Your task to perform on an android device: WHat are the new products by Samsung on eBay? Image 0: 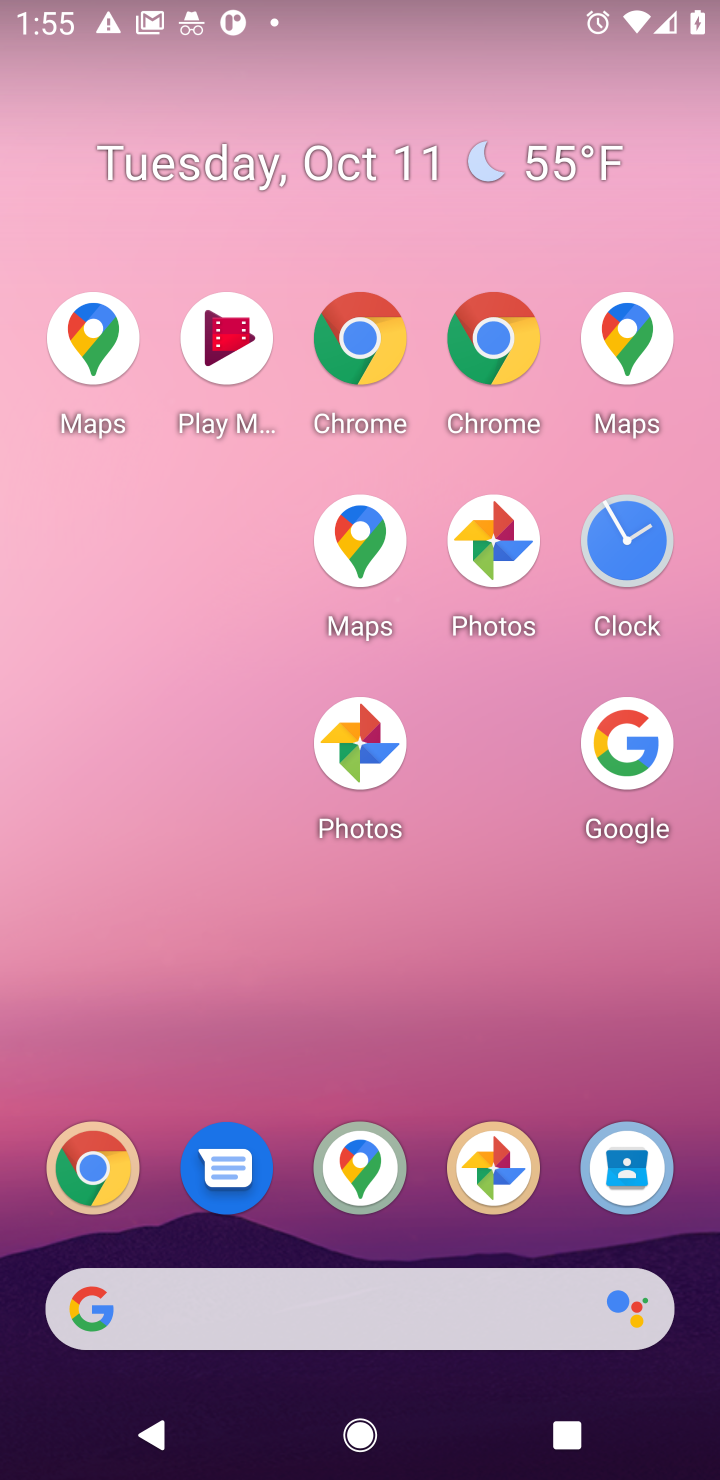
Step 0: click (609, 787)
Your task to perform on an android device: WHat are the new products by Samsung on eBay? Image 1: 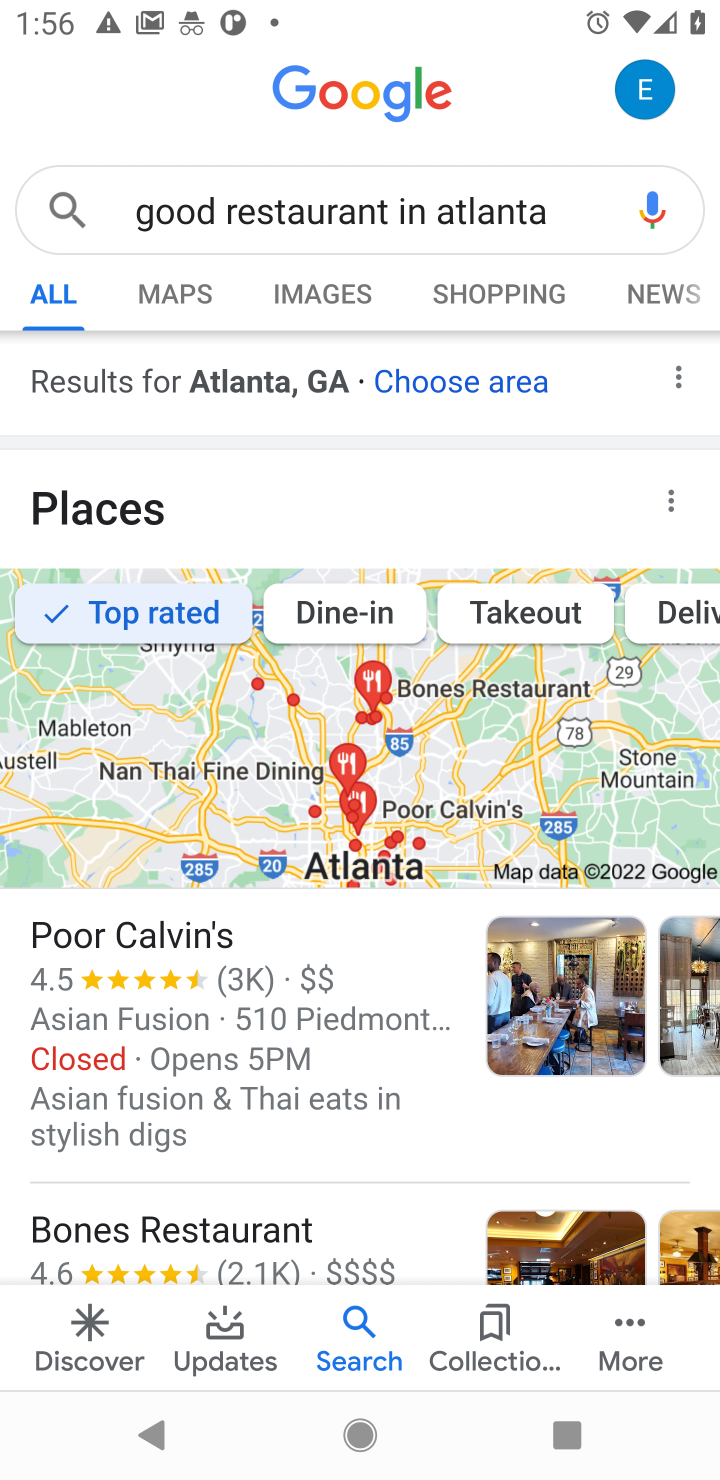
Step 1: click (551, 198)
Your task to perform on an android device: WHat are the new products by Samsung on eBay? Image 2: 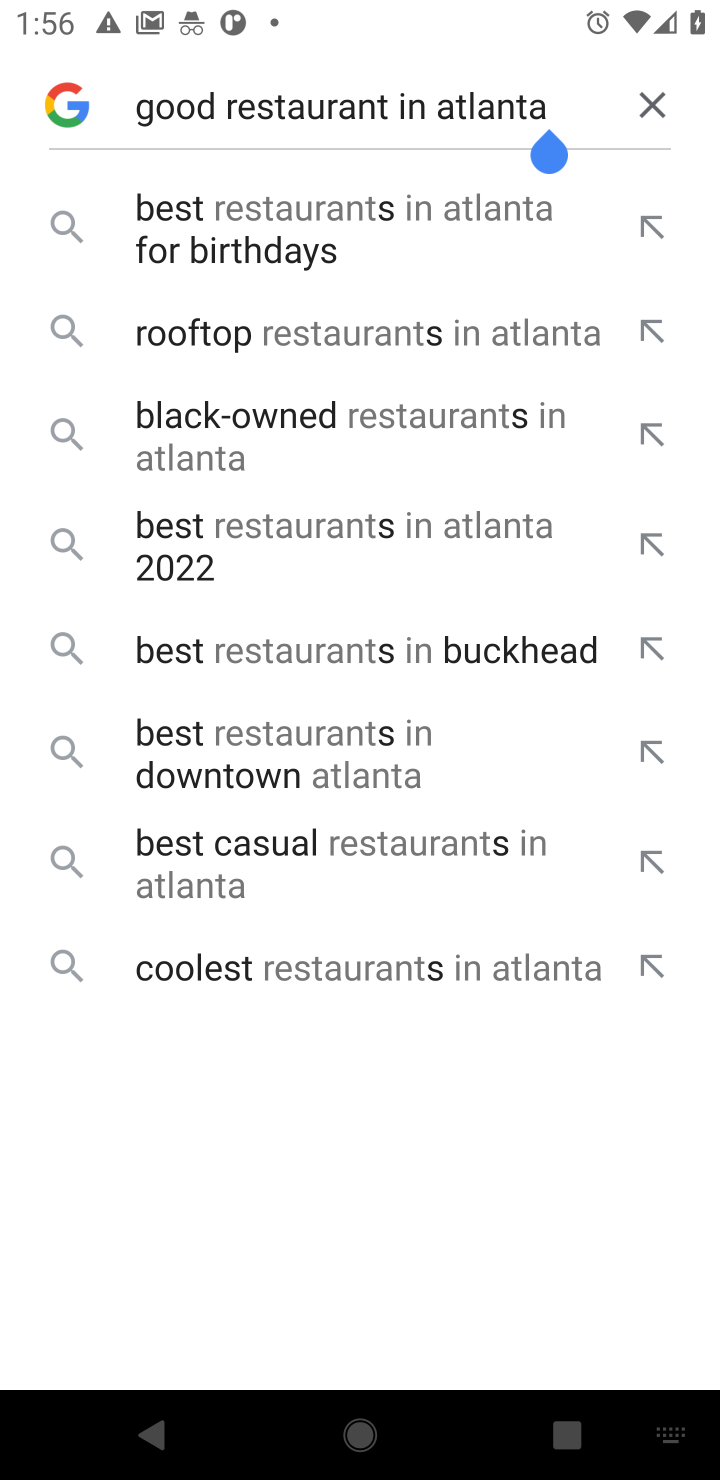
Step 2: click (641, 108)
Your task to perform on an android device: WHat are the new products by Samsung on eBay? Image 3: 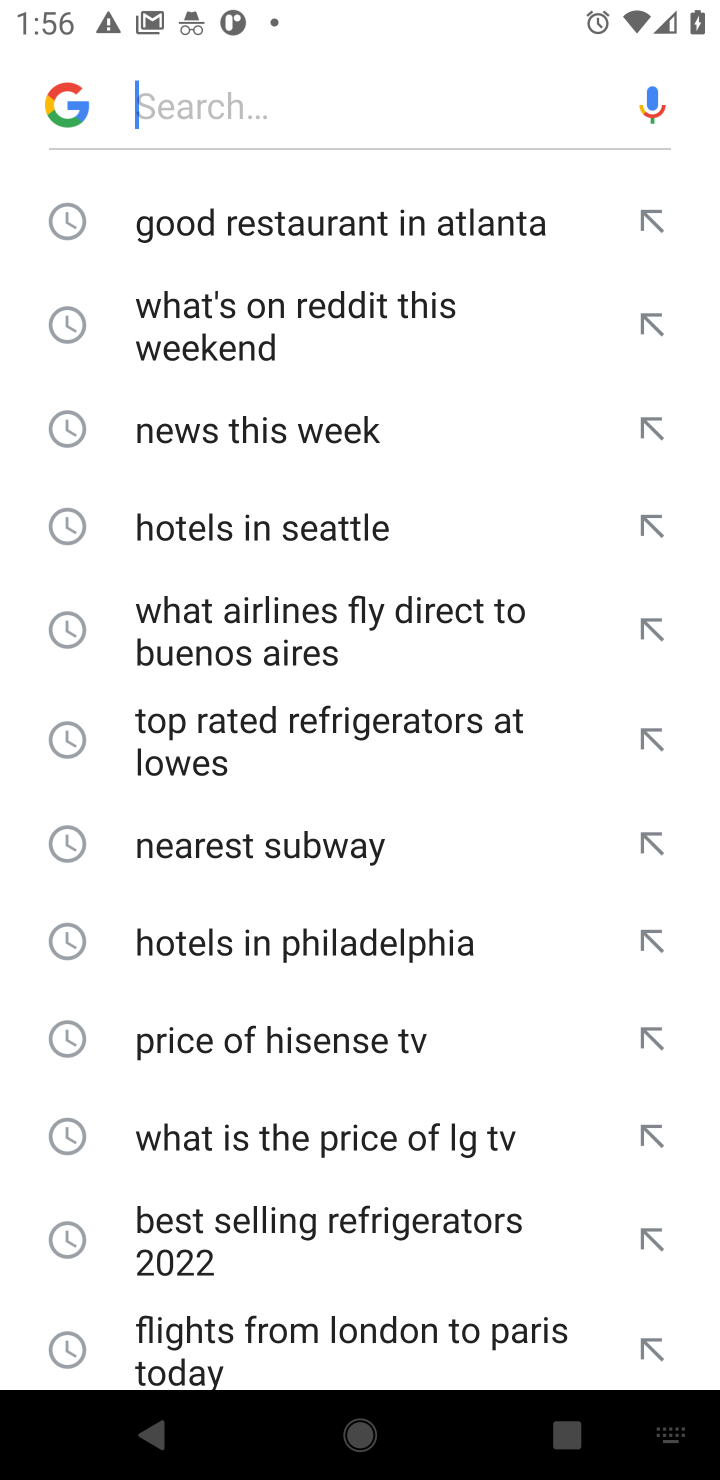
Step 3: type "ebay"
Your task to perform on an android device: WHat are the new products by Samsung on eBay? Image 4: 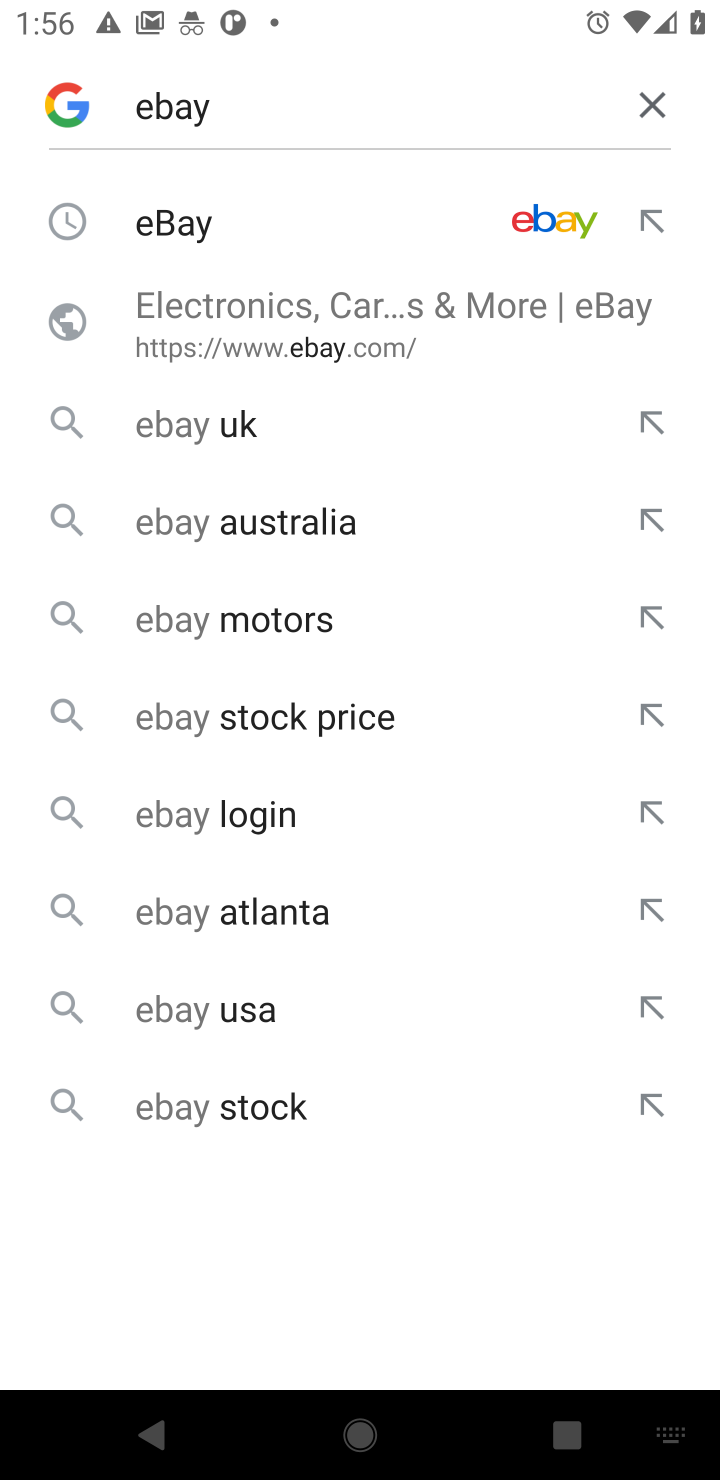
Step 4: click (509, 242)
Your task to perform on an android device: WHat are the new products by Samsung on eBay? Image 5: 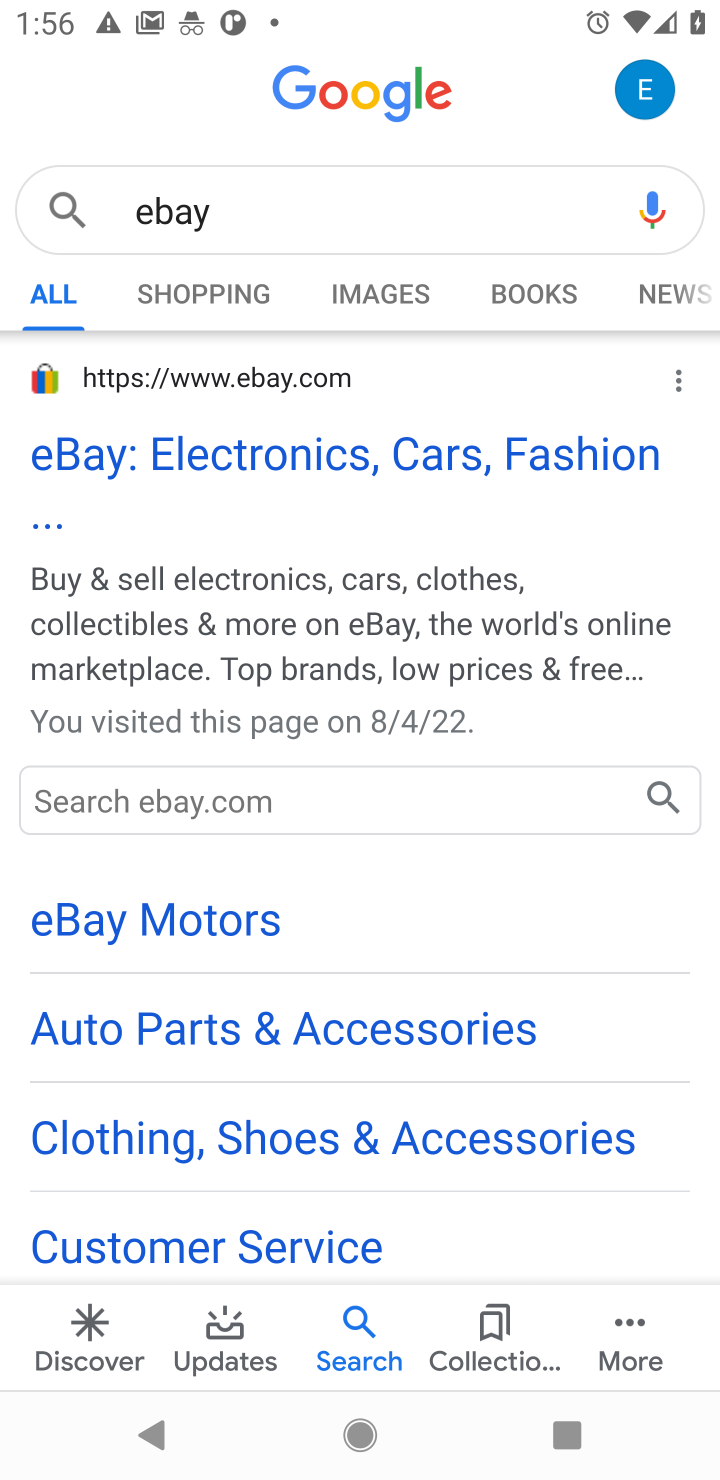
Step 5: click (362, 449)
Your task to perform on an android device: WHat are the new products by Samsung on eBay? Image 6: 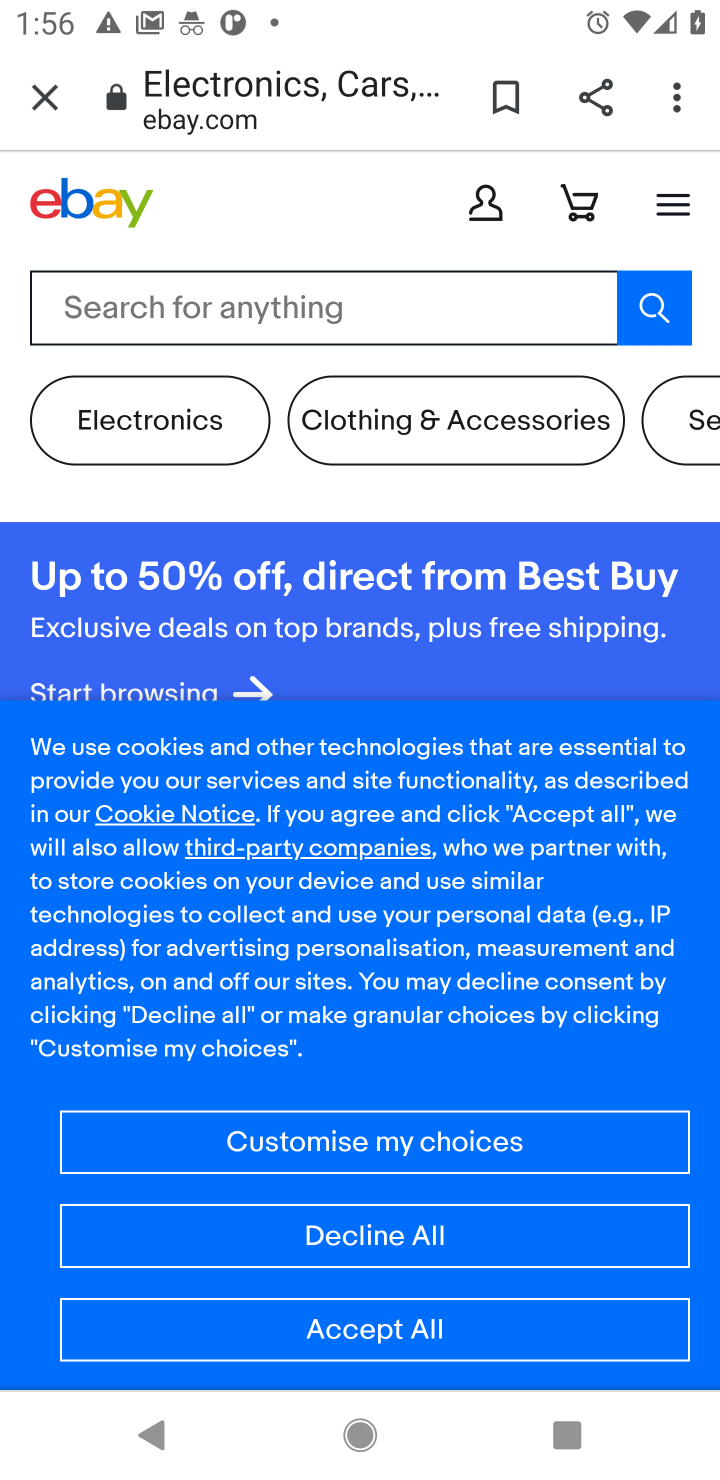
Step 6: click (318, 308)
Your task to perform on an android device: WHat are the new products by Samsung on eBay? Image 7: 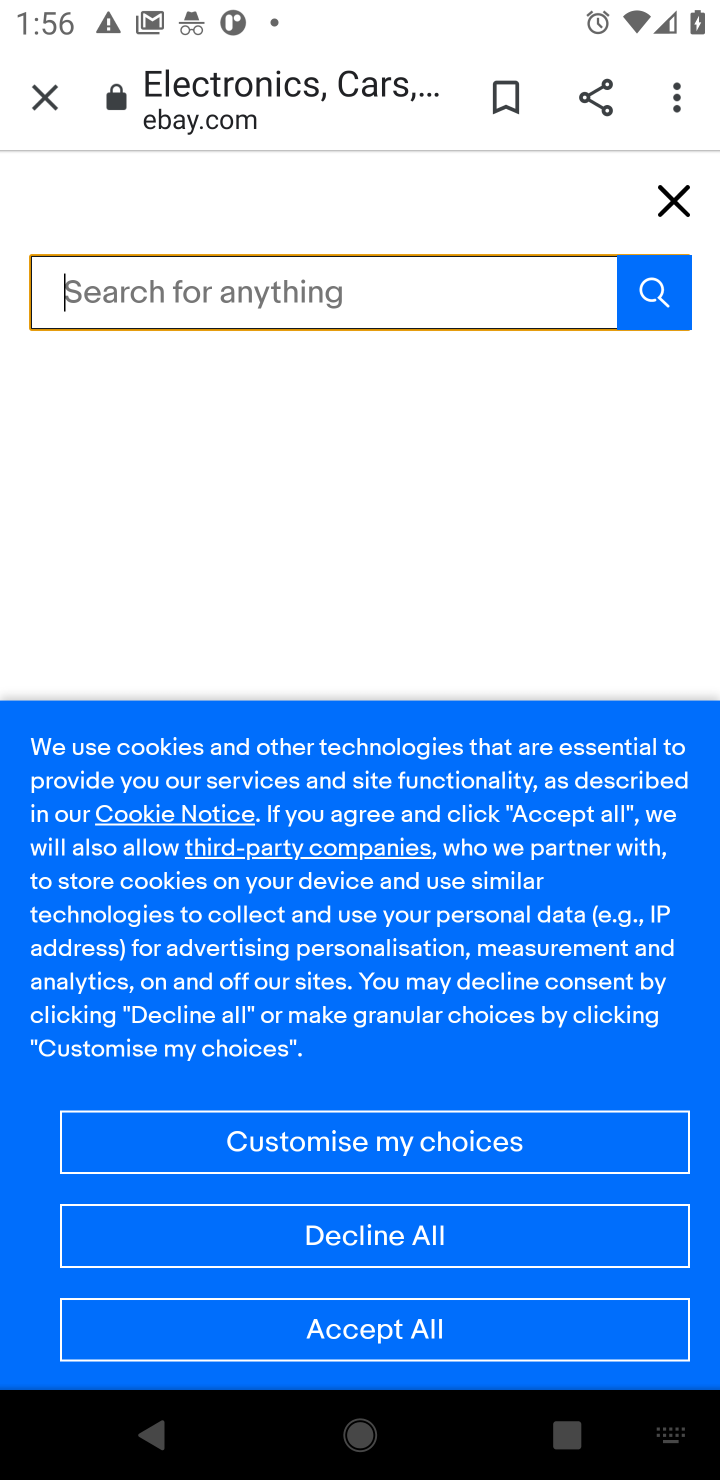
Step 7: type "new samsung product"
Your task to perform on an android device: WHat are the new products by Samsung on eBay? Image 8: 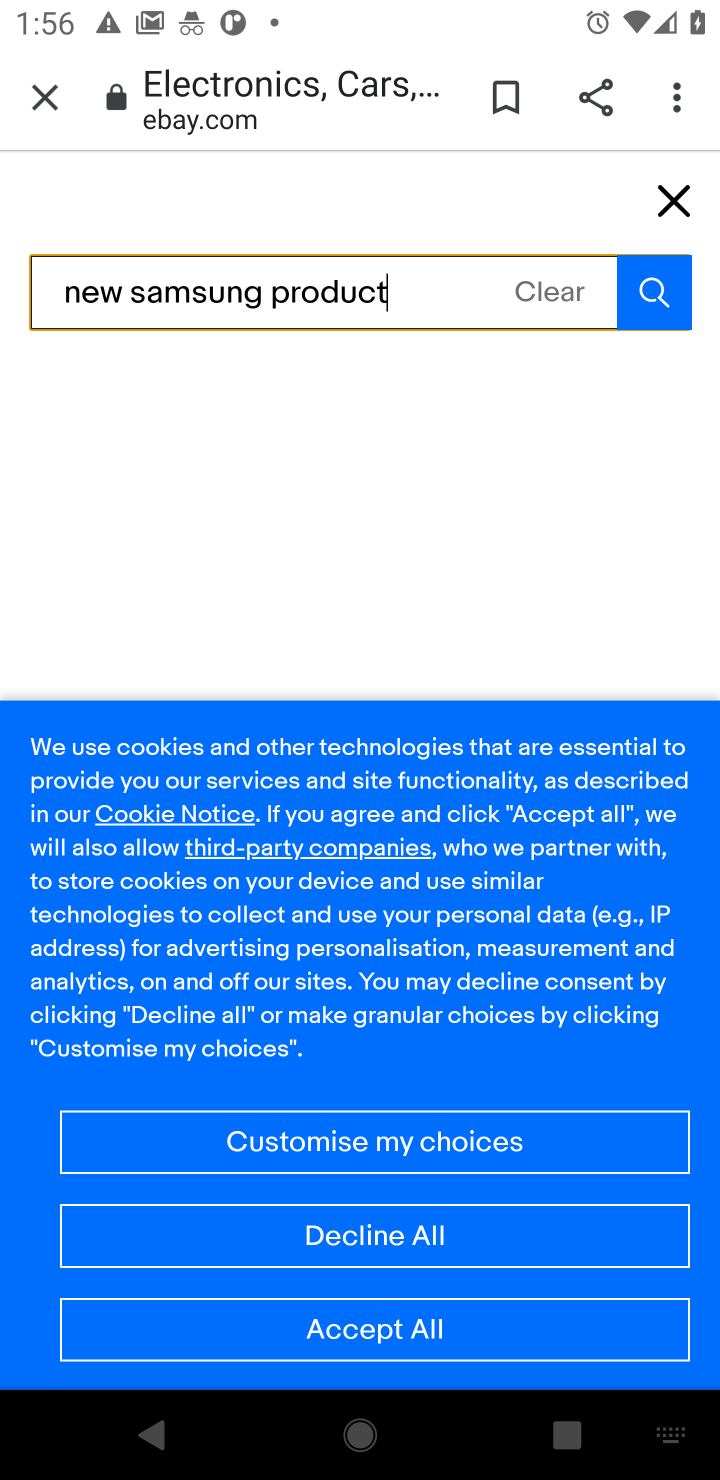
Step 8: click (643, 285)
Your task to perform on an android device: WHat are the new products by Samsung on eBay? Image 9: 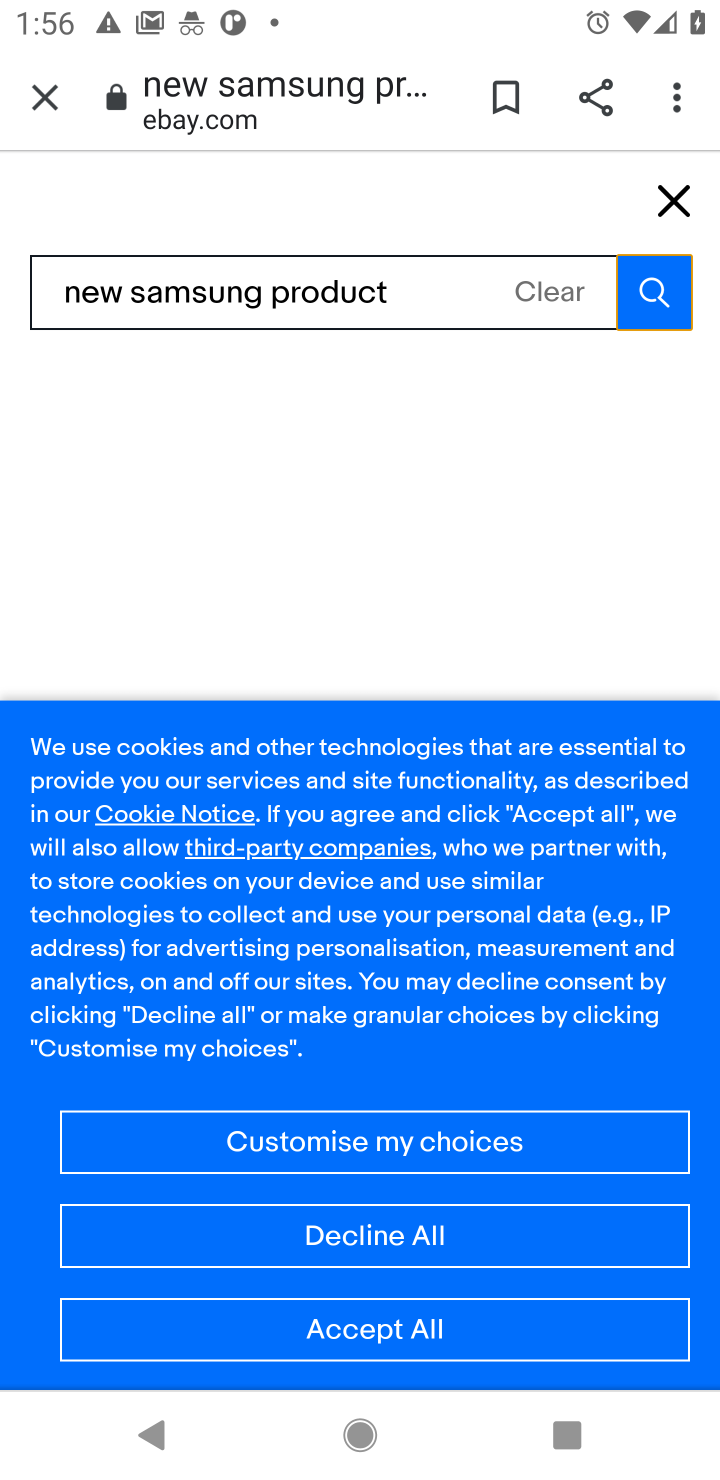
Step 9: click (338, 1316)
Your task to perform on an android device: WHat are the new products by Samsung on eBay? Image 10: 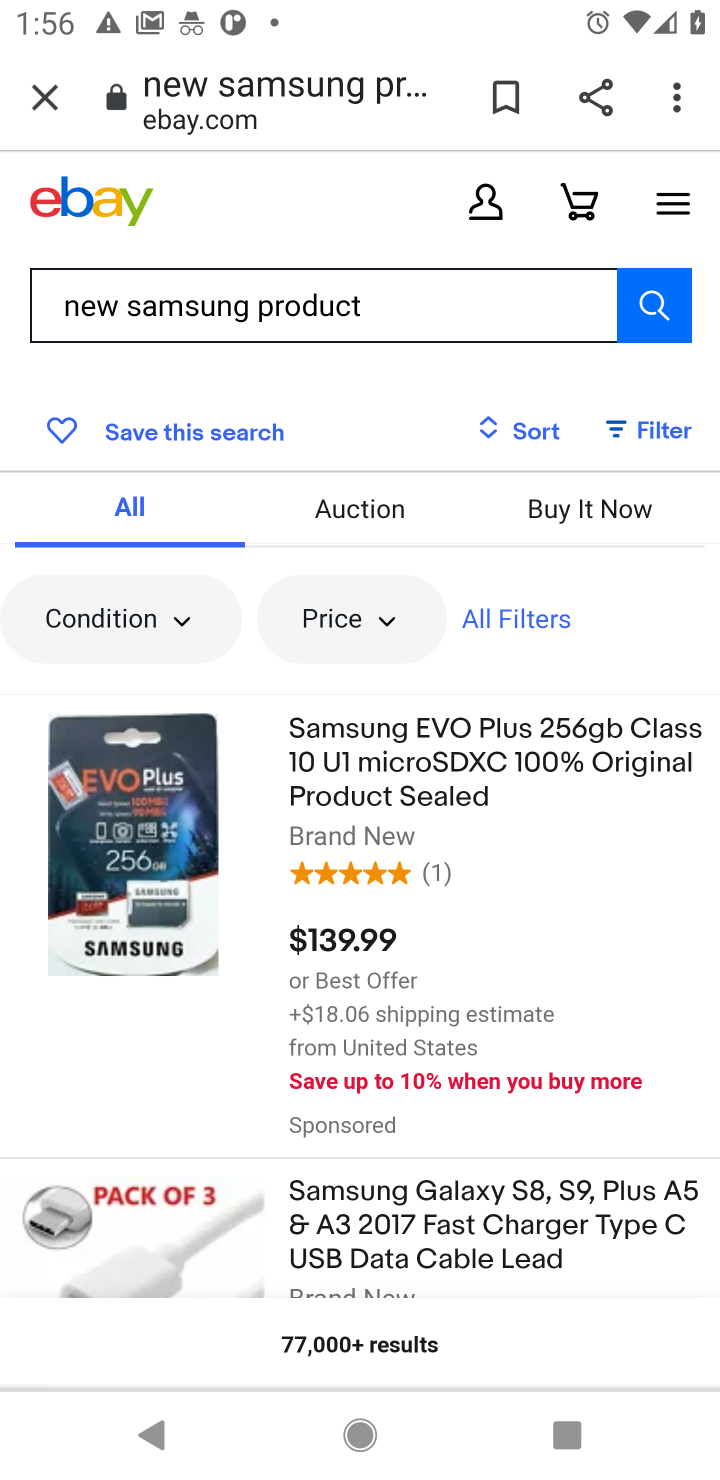
Step 10: task complete